Your task to perform on an android device: delete the emails in spam in the gmail app Image 0: 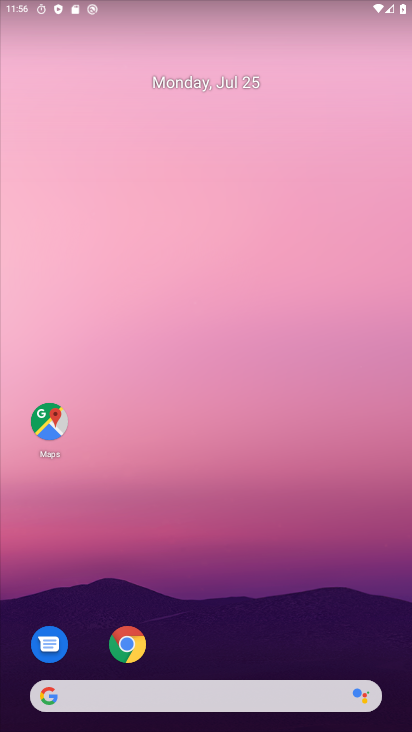
Step 0: drag from (342, 654) to (22, 350)
Your task to perform on an android device: delete the emails in spam in the gmail app Image 1: 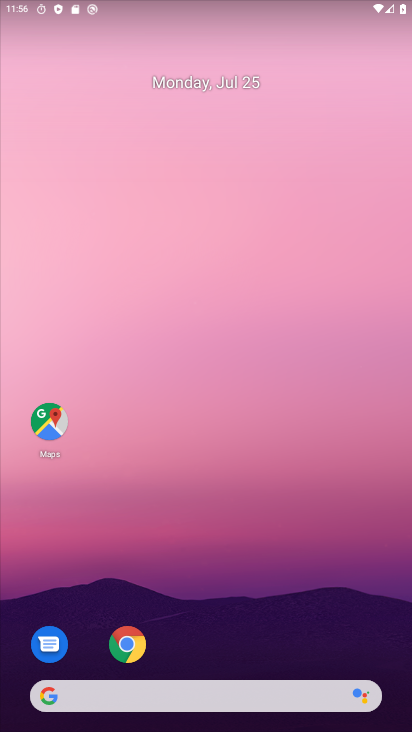
Step 1: drag from (284, 670) to (374, 201)
Your task to perform on an android device: delete the emails in spam in the gmail app Image 2: 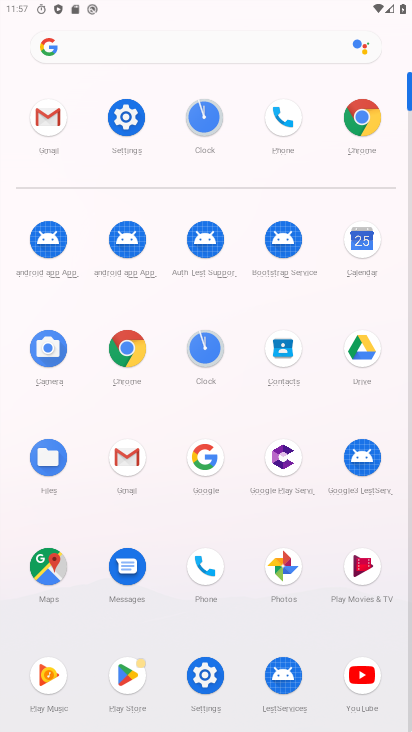
Step 2: click (47, 132)
Your task to perform on an android device: delete the emails in spam in the gmail app Image 3: 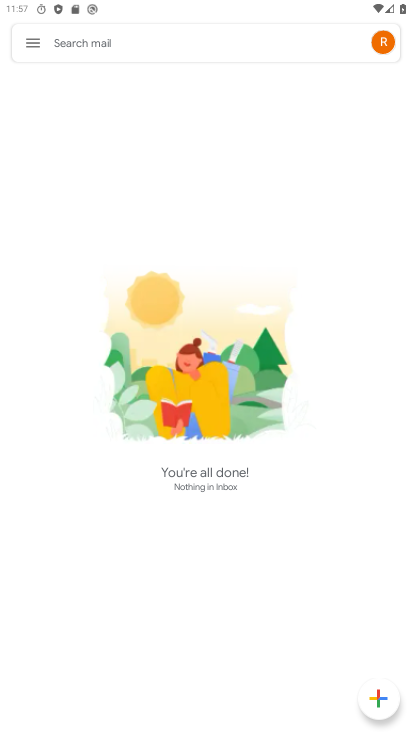
Step 3: click (32, 50)
Your task to perform on an android device: delete the emails in spam in the gmail app Image 4: 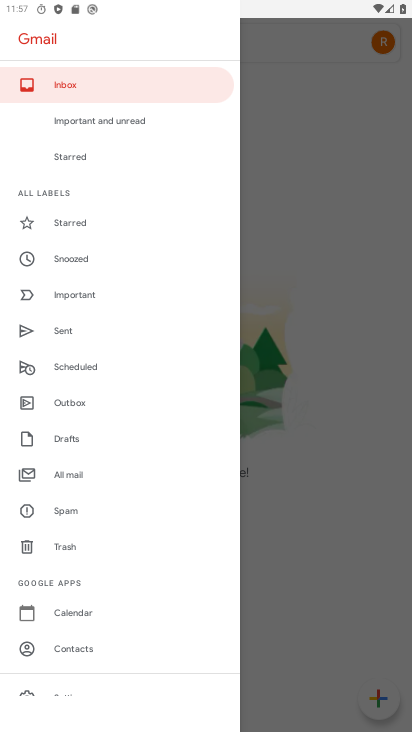
Step 4: click (77, 512)
Your task to perform on an android device: delete the emails in spam in the gmail app Image 5: 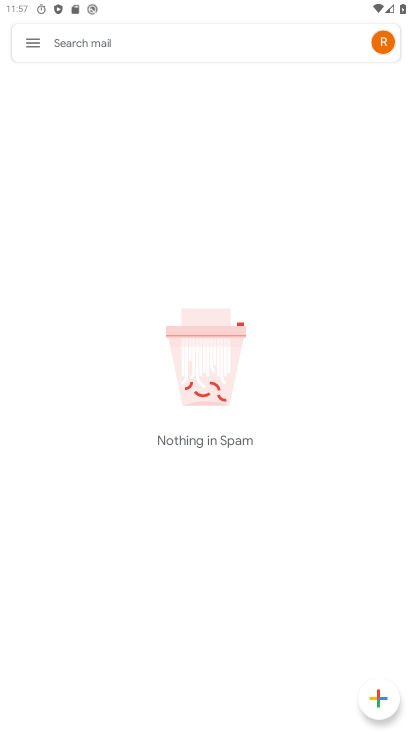
Step 5: click (46, 48)
Your task to perform on an android device: delete the emails in spam in the gmail app Image 6: 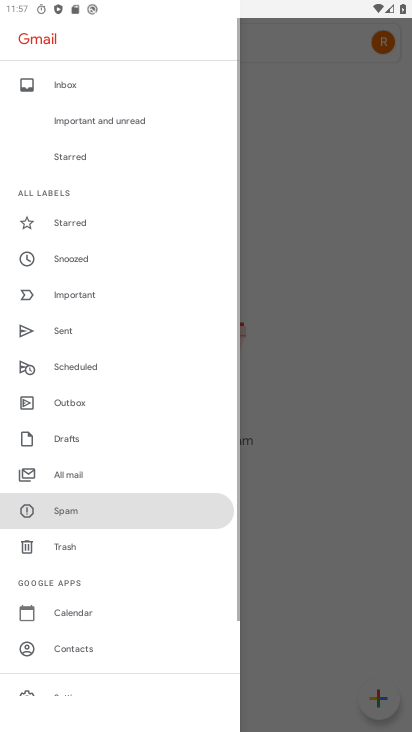
Step 6: task complete